Your task to perform on an android device: toggle location history Image 0: 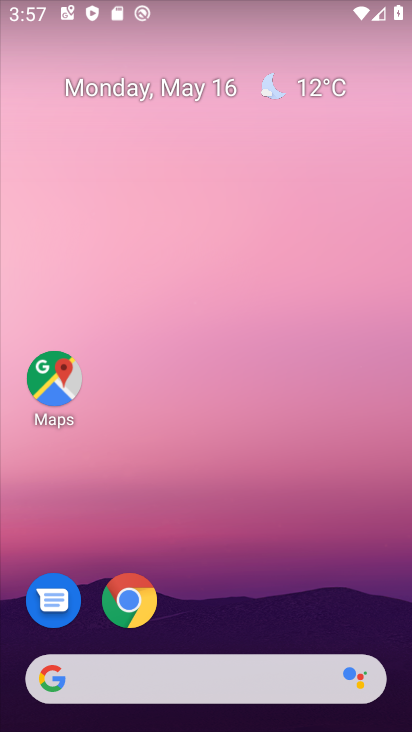
Step 0: drag from (184, 660) to (241, 252)
Your task to perform on an android device: toggle location history Image 1: 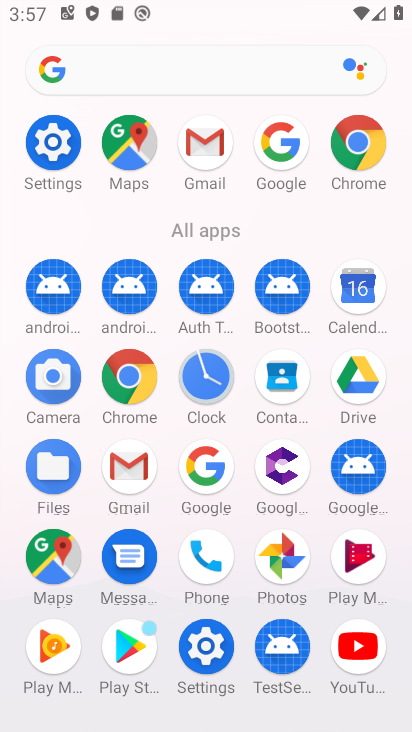
Step 1: click (57, 148)
Your task to perform on an android device: toggle location history Image 2: 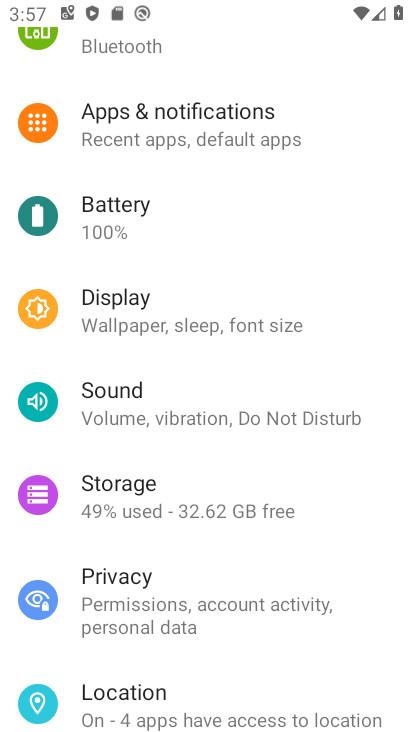
Step 2: click (159, 693)
Your task to perform on an android device: toggle location history Image 3: 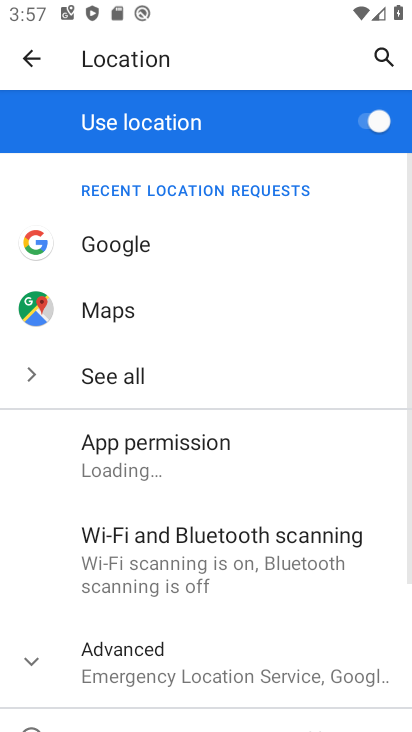
Step 3: click (140, 659)
Your task to perform on an android device: toggle location history Image 4: 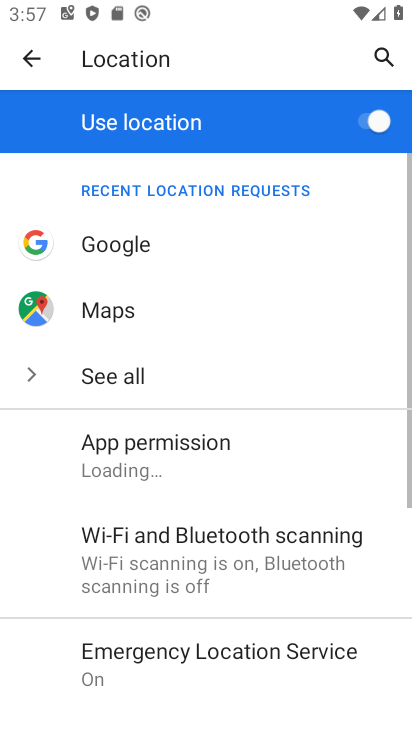
Step 4: drag from (206, 680) to (191, 385)
Your task to perform on an android device: toggle location history Image 5: 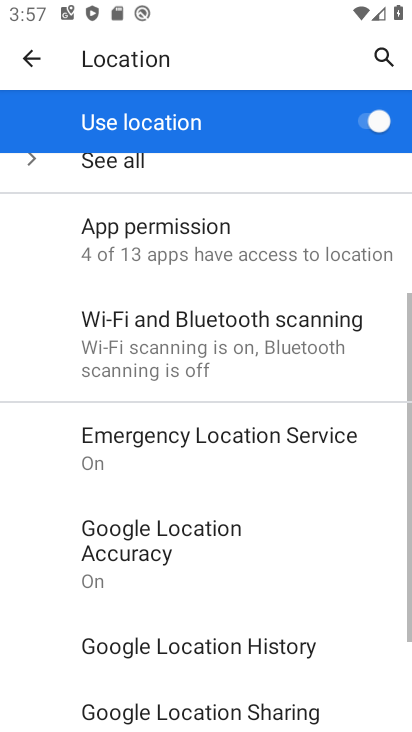
Step 5: click (223, 654)
Your task to perform on an android device: toggle location history Image 6: 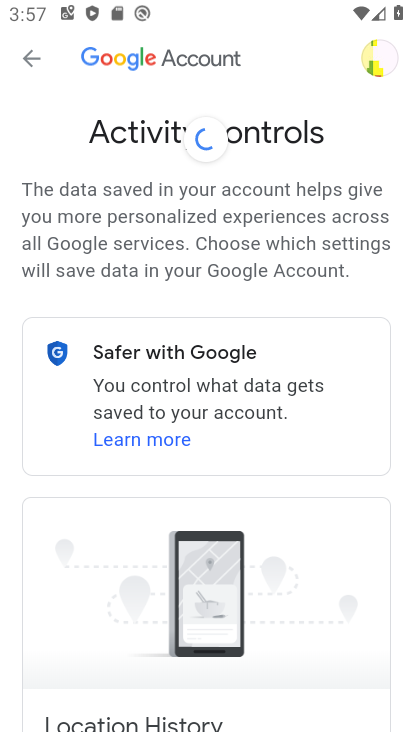
Step 6: drag from (281, 638) to (282, 248)
Your task to perform on an android device: toggle location history Image 7: 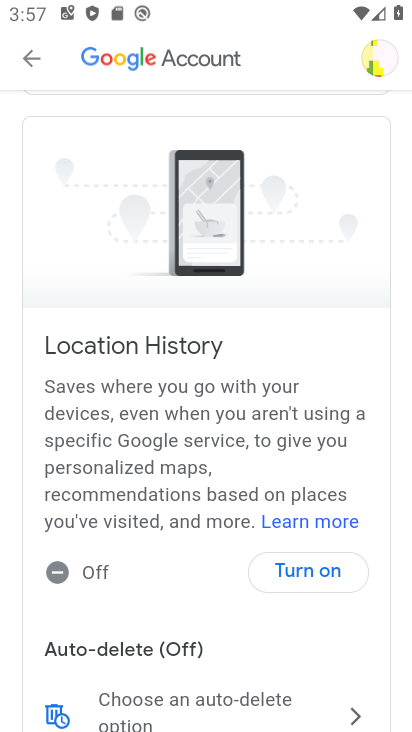
Step 7: click (314, 570)
Your task to perform on an android device: toggle location history Image 8: 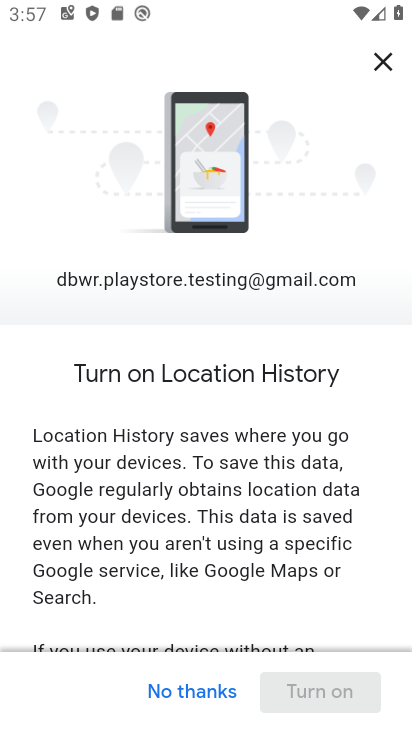
Step 8: drag from (309, 637) to (264, 310)
Your task to perform on an android device: toggle location history Image 9: 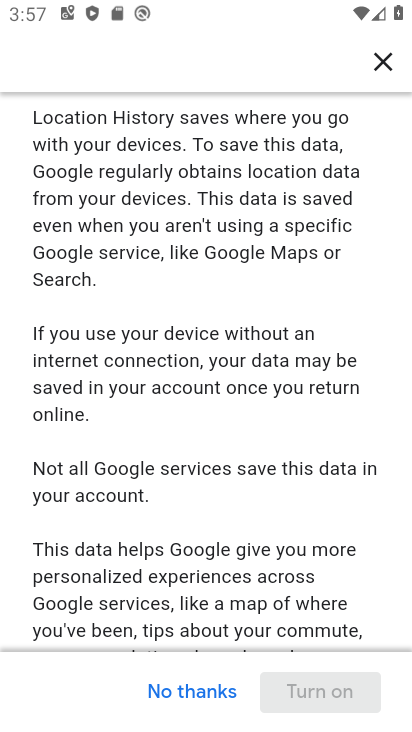
Step 9: drag from (341, 612) to (349, 335)
Your task to perform on an android device: toggle location history Image 10: 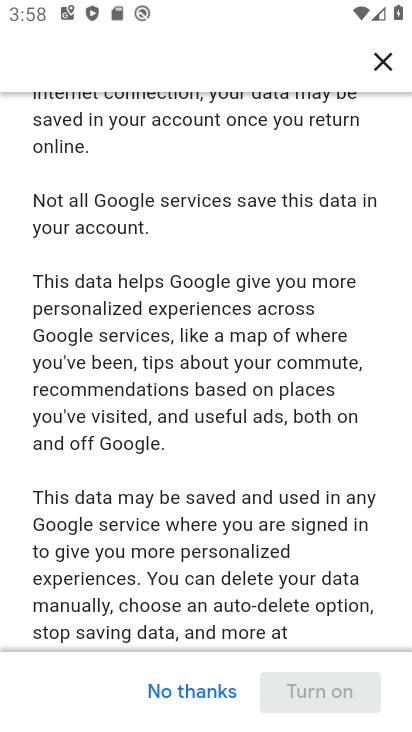
Step 10: drag from (306, 627) to (311, 323)
Your task to perform on an android device: toggle location history Image 11: 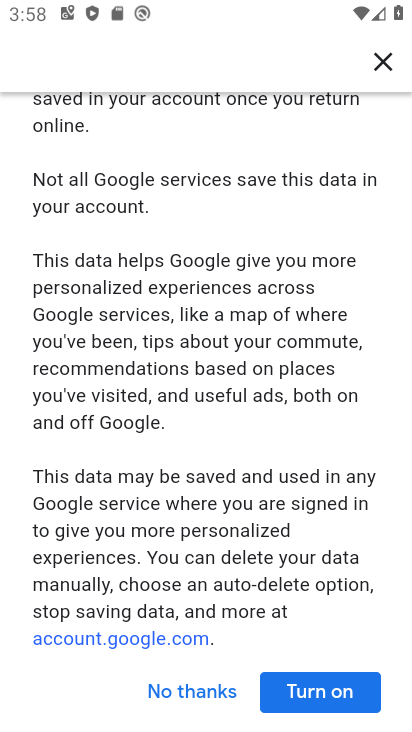
Step 11: click (282, 701)
Your task to perform on an android device: toggle location history Image 12: 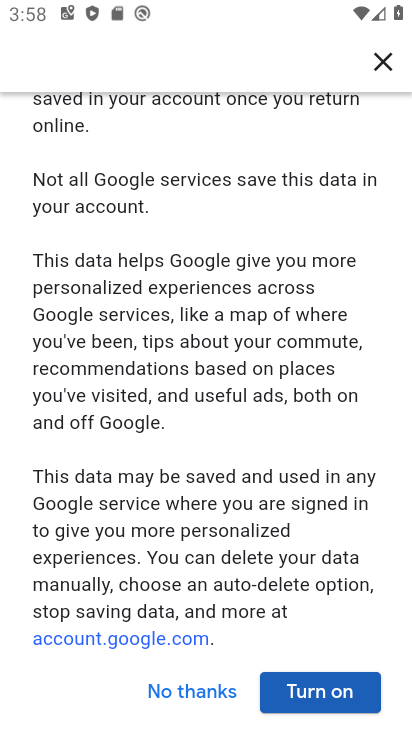
Step 12: click (331, 693)
Your task to perform on an android device: toggle location history Image 13: 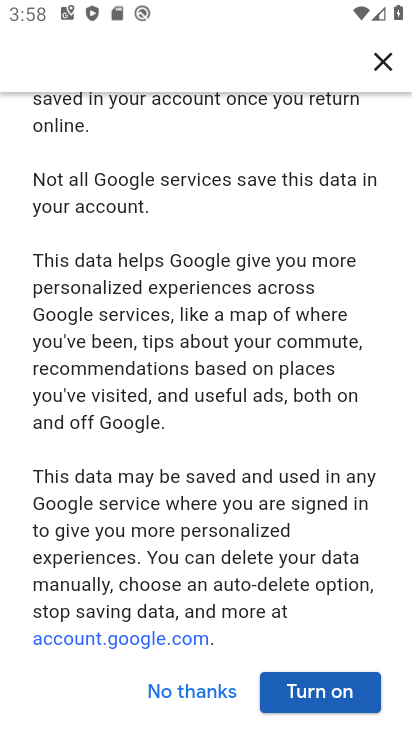
Step 13: drag from (281, 629) to (254, 310)
Your task to perform on an android device: toggle location history Image 14: 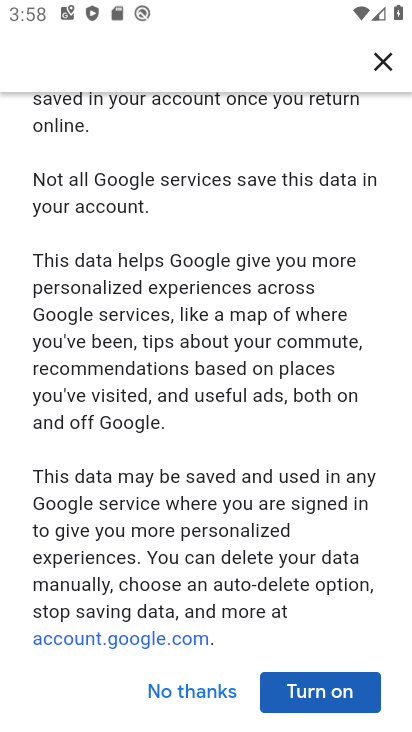
Step 14: click (349, 694)
Your task to perform on an android device: toggle location history Image 15: 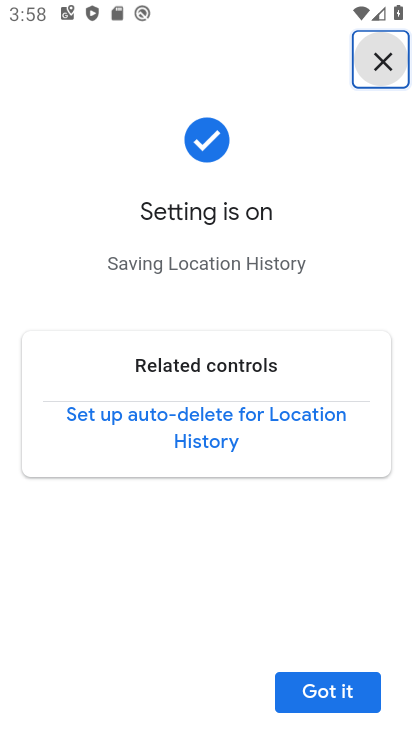
Step 15: click (329, 685)
Your task to perform on an android device: toggle location history Image 16: 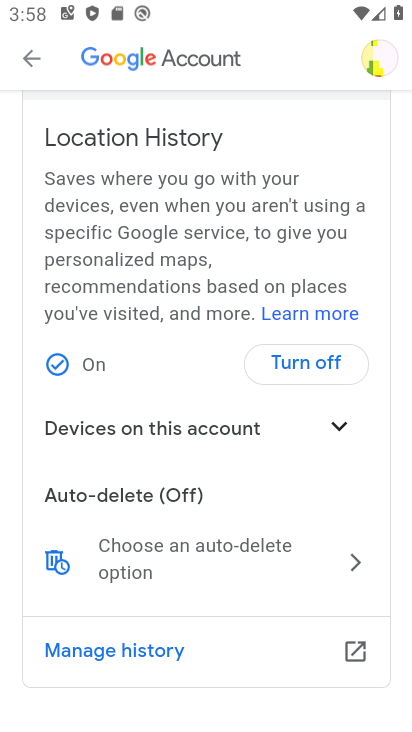
Step 16: task complete